Your task to perform on an android device: turn off javascript in the chrome app Image 0: 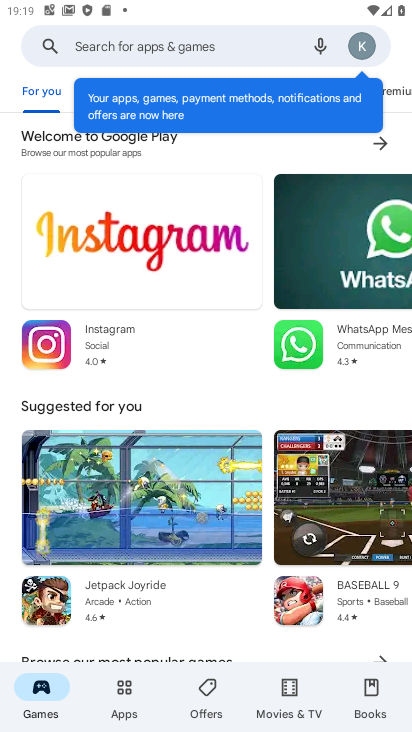
Step 0: press home button
Your task to perform on an android device: turn off javascript in the chrome app Image 1: 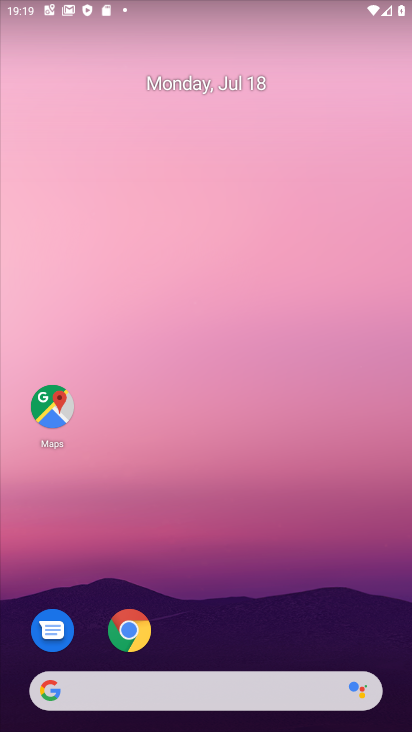
Step 1: drag from (314, 544) to (270, 11)
Your task to perform on an android device: turn off javascript in the chrome app Image 2: 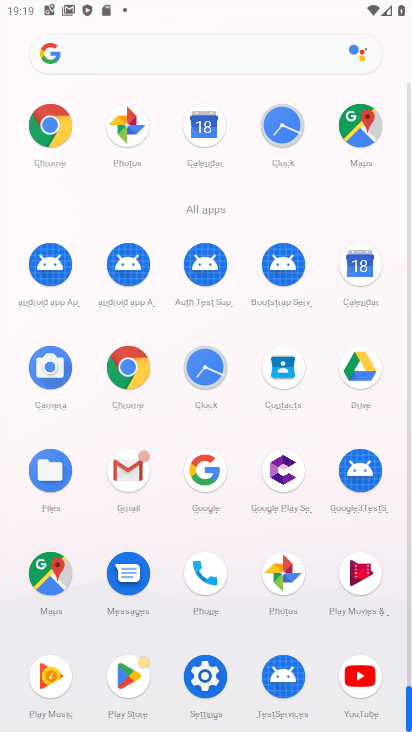
Step 2: click (56, 136)
Your task to perform on an android device: turn off javascript in the chrome app Image 3: 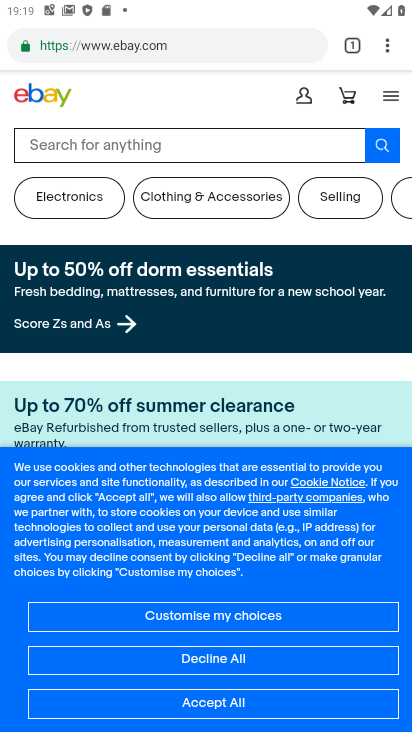
Step 3: drag from (396, 51) to (240, 539)
Your task to perform on an android device: turn off javascript in the chrome app Image 4: 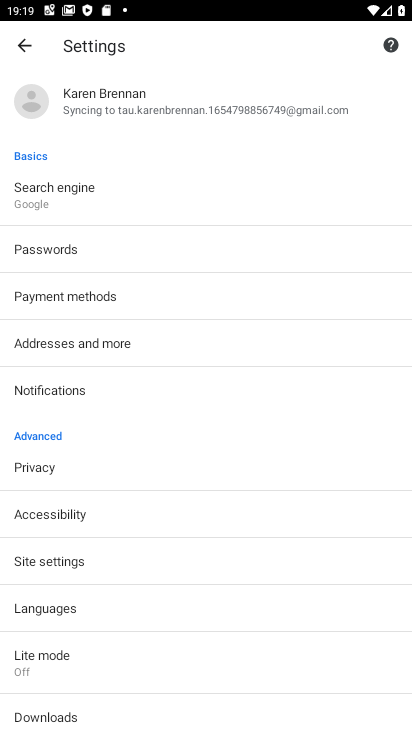
Step 4: click (31, 567)
Your task to perform on an android device: turn off javascript in the chrome app Image 5: 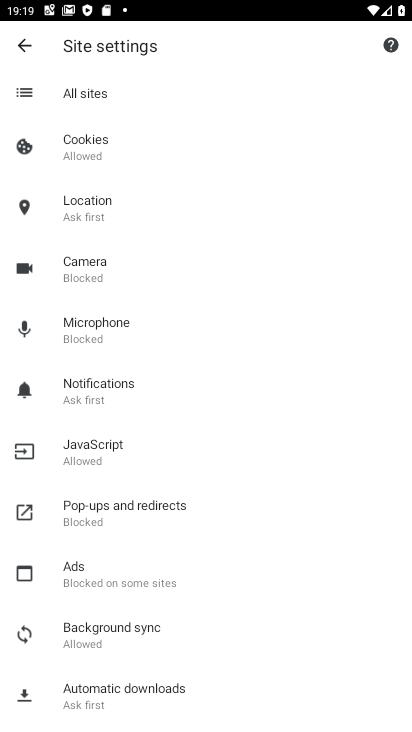
Step 5: click (100, 457)
Your task to perform on an android device: turn off javascript in the chrome app Image 6: 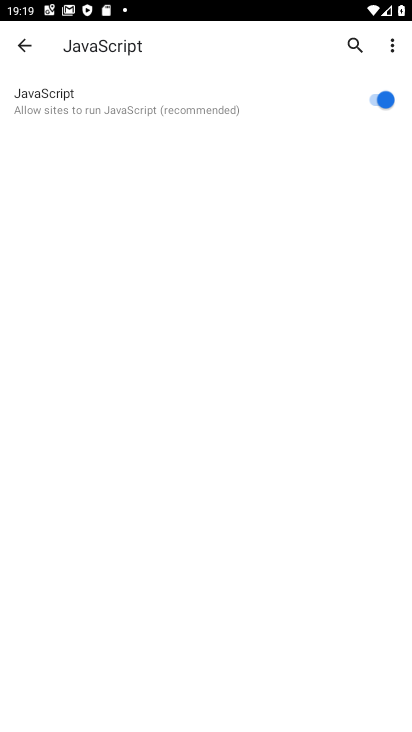
Step 6: click (366, 100)
Your task to perform on an android device: turn off javascript in the chrome app Image 7: 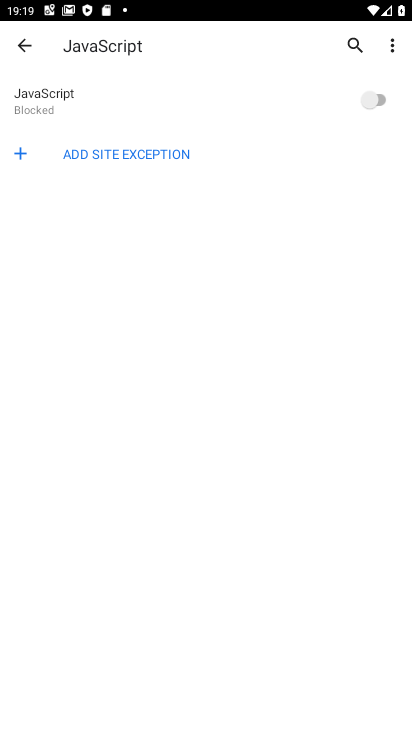
Step 7: task complete